Your task to perform on an android device: Clear all items from cart on walmart.com. Search for "duracell triple a" on walmart.com, select the first entry, add it to the cart, then select checkout. Image 0: 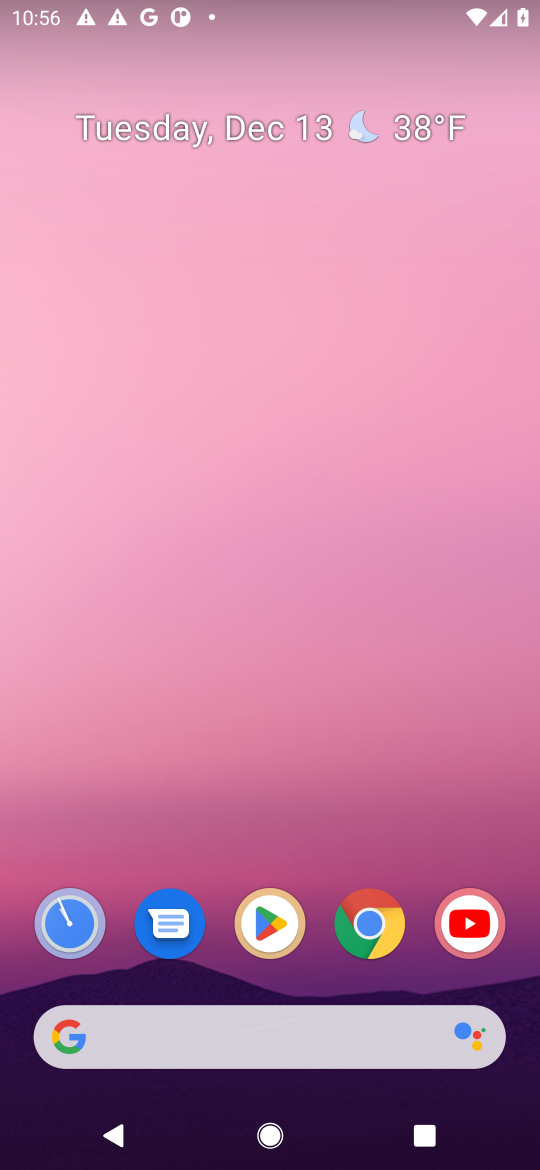
Step 0: click (298, 1028)
Your task to perform on an android device: Clear all items from cart on walmart.com. Search for "duracell triple a" on walmart.com, select the first entry, add it to the cart, then select checkout. Image 1: 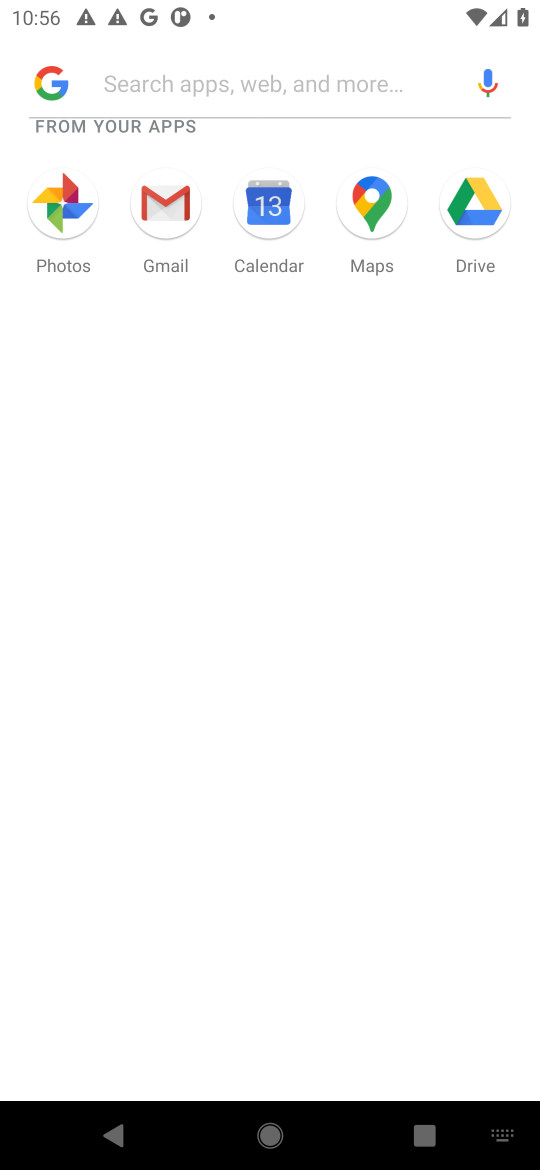
Step 1: type "walmart"
Your task to perform on an android device: Clear all items from cart on walmart.com. Search for "duracell triple a" on walmart.com, select the first entry, add it to the cart, then select checkout. Image 2: 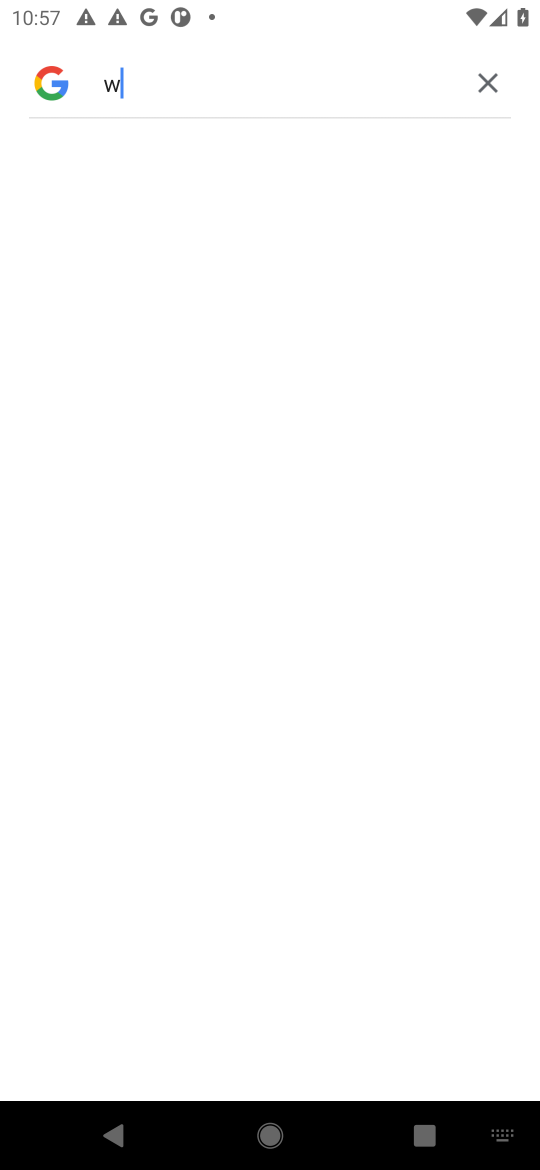
Step 2: press home button
Your task to perform on an android device: Clear all items from cart on walmart.com. Search for "duracell triple a" on walmart.com, select the first entry, add it to the cart, then select checkout. Image 3: 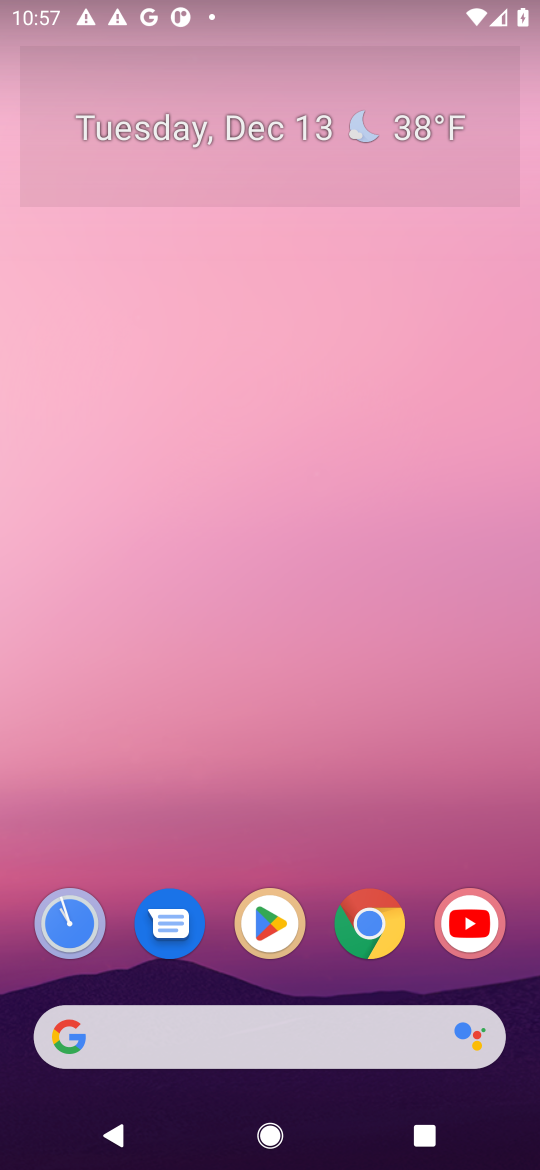
Step 3: click (374, 943)
Your task to perform on an android device: Clear all items from cart on walmart.com. Search for "duracell triple a" on walmart.com, select the first entry, add it to the cart, then select checkout. Image 4: 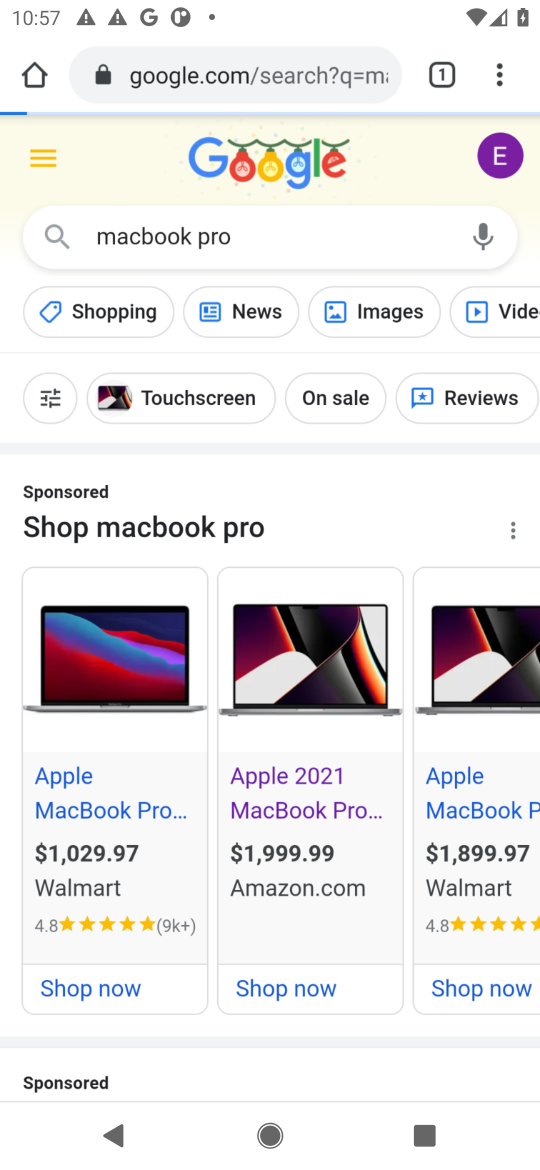
Step 4: click (307, 258)
Your task to perform on an android device: Clear all items from cart on walmart.com. Search for "duracell triple a" on walmart.com, select the first entry, add it to the cart, then select checkout. Image 5: 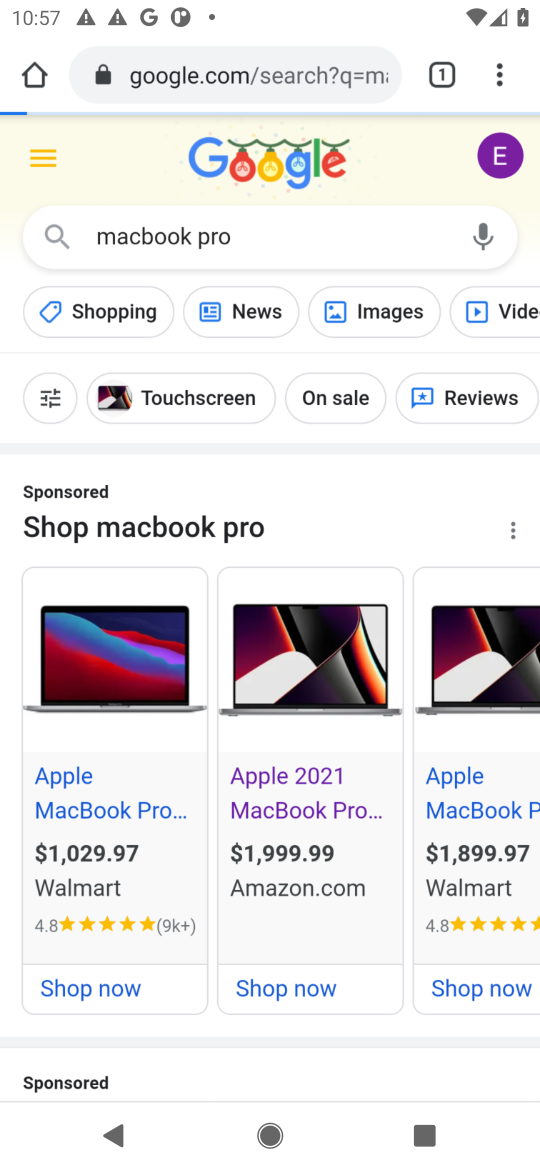
Step 5: click (325, 78)
Your task to perform on an android device: Clear all items from cart on walmart.com. Search for "duracell triple a" on walmart.com, select the first entry, add it to the cart, then select checkout. Image 6: 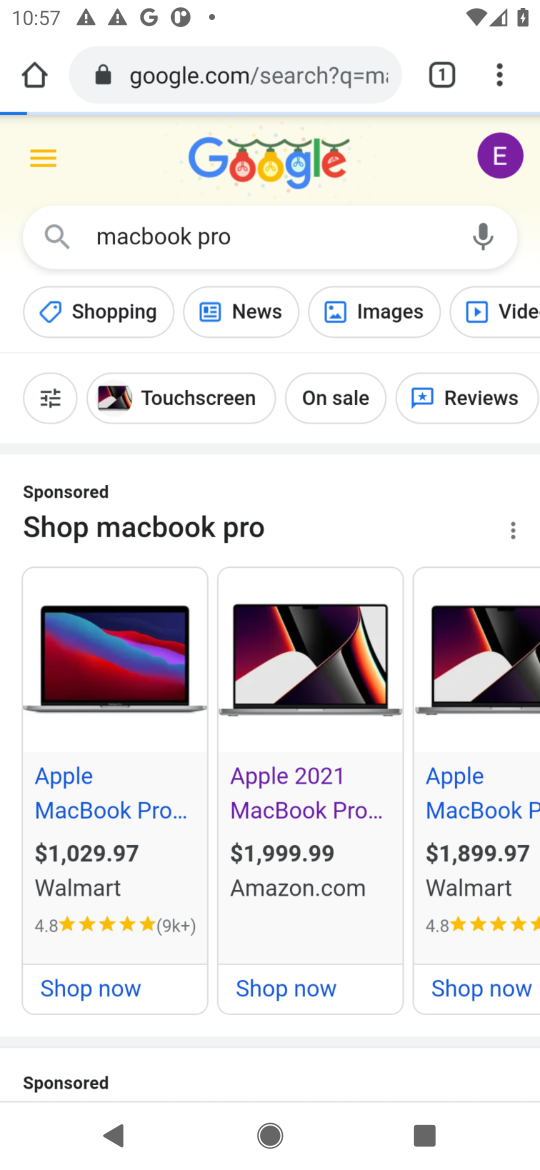
Step 6: click (325, 78)
Your task to perform on an android device: Clear all items from cart on walmart.com. Search for "duracell triple a" on walmart.com, select the first entry, add it to the cart, then select checkout. Image 7: 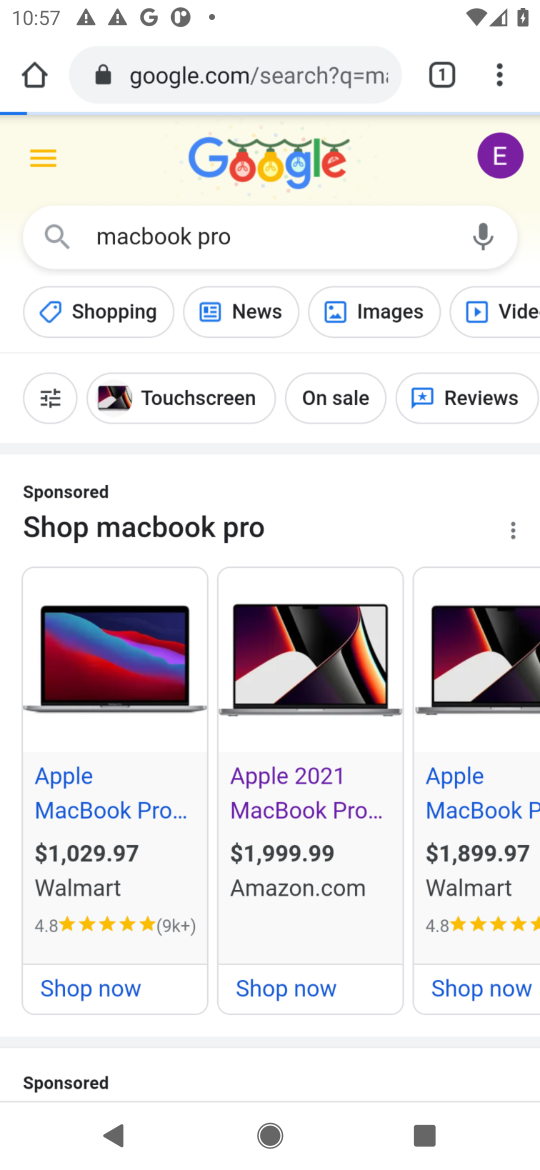
Step 7: click (329, 76)
Your task to perform on an android device: Clear all items from cart on walmart.com. Search for "duracell triple a" on walmart.com, select the first entry, add it to the cart, then select checkout. Image 8: 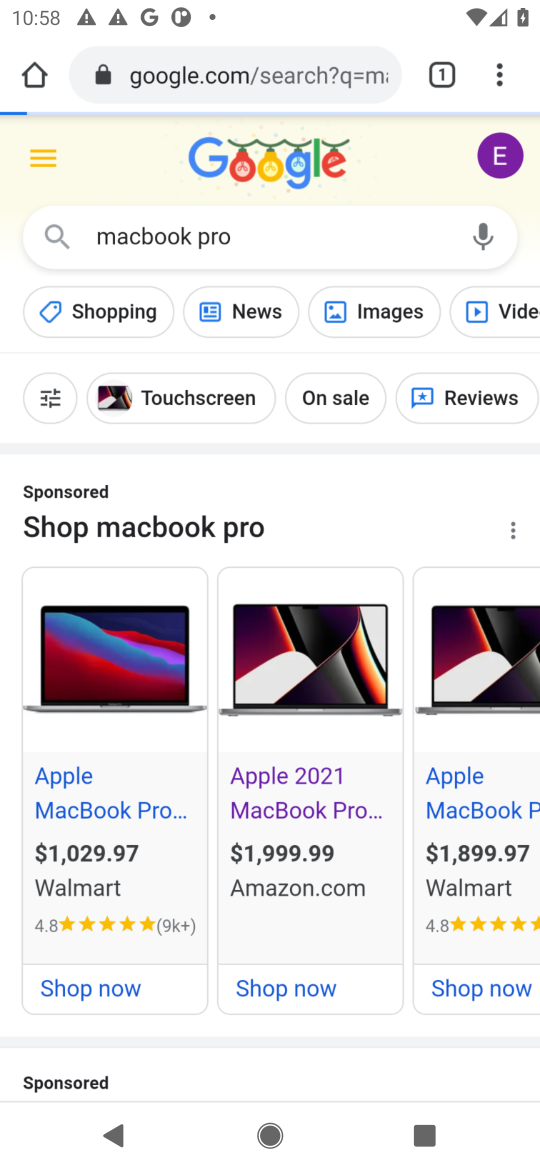
Step 8: click (274, 87)
Your task to perform on an android device: Clear all items from cart on walmart.com. Search for "duracell triple a" on walmart.com, select the first entry, add it to the cart, then select checkout. Image 9: 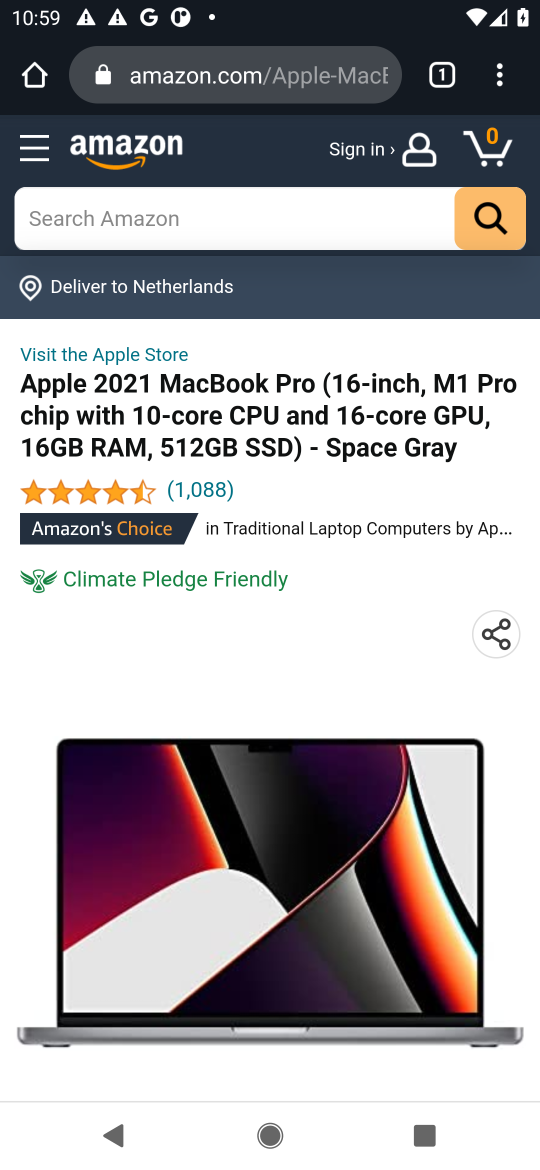
Step 9: click (305, 234)
Your task to perform on an android device: Clear all items from cart on walmart.com. Search for "duracell triple a" on walmart.com, select the first entry, add it to the cart, then select checkout. Image 10: 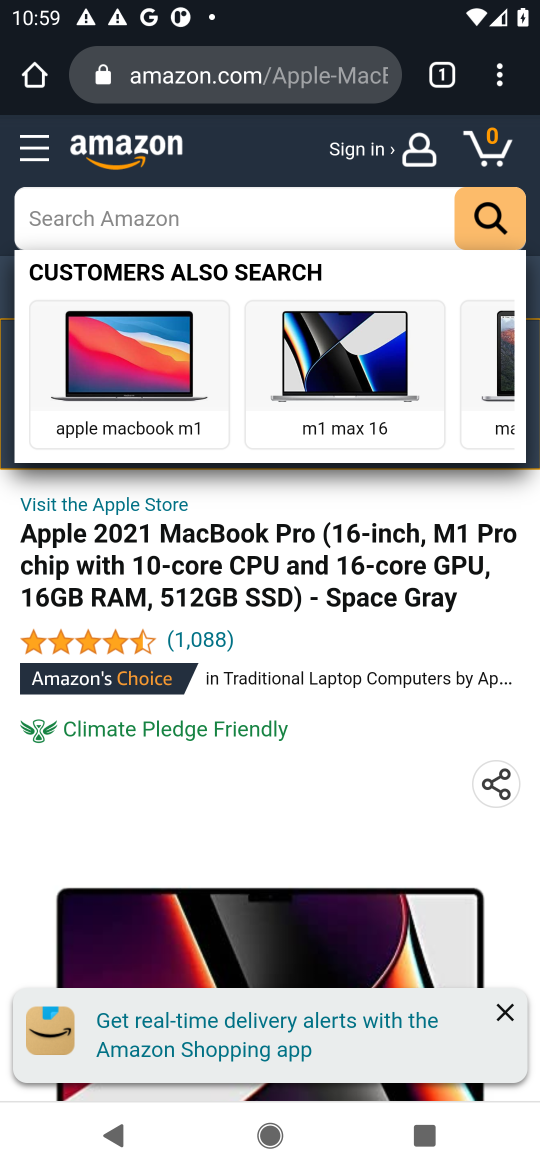
Step 10: type "duracell triple a"
Your task to perform on an android device: Clear all items from cart on walmart.com. Search for "duracell triple a" on walmart.com, select the first entry, add it to the cart, then select checkout. Image 11: 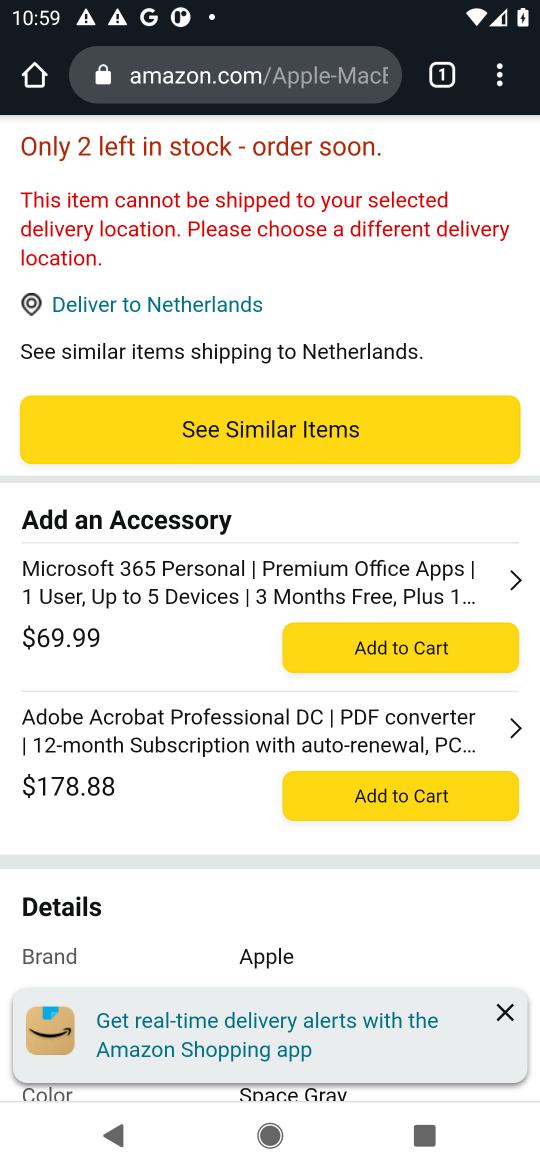
Step 11: drag from (287, 327) to (306, 1138)
Your task to perform on an android device: Clear all items from cart on walmart.com. Search for "duracell triple a" on walmart.com, select the first entry, add it to the cart, then select checkout. Image 12: 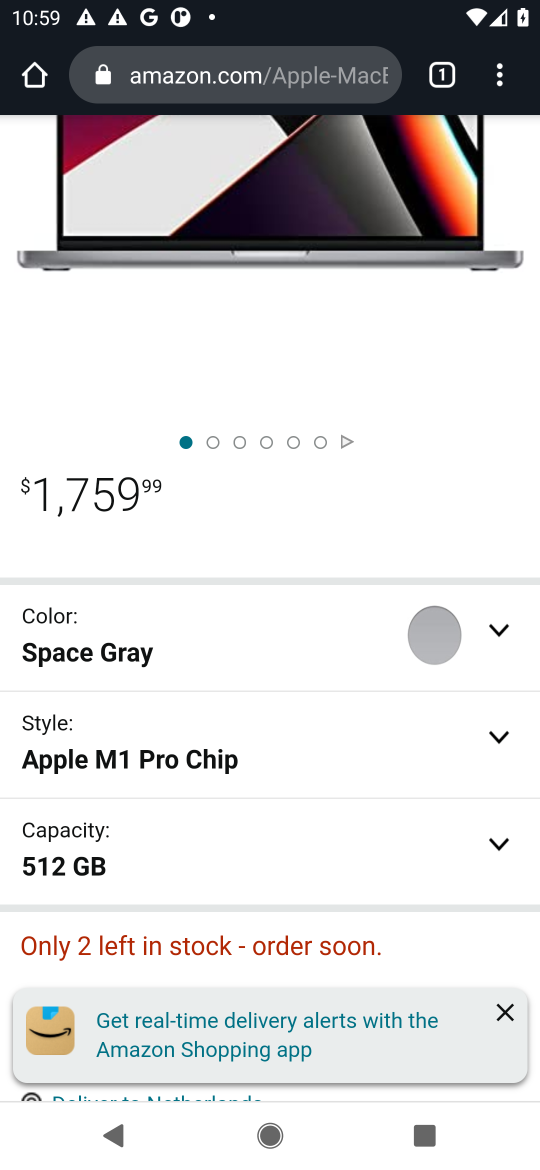
Step 12: drag from (284, 268) to (363, 1160)
Your task to perform on an android device: Clear all items from cart on walmart.com. Search for "duracell triple a" on walmart.com, select the first entry, add it to the cart, then select checkout. Image 13: 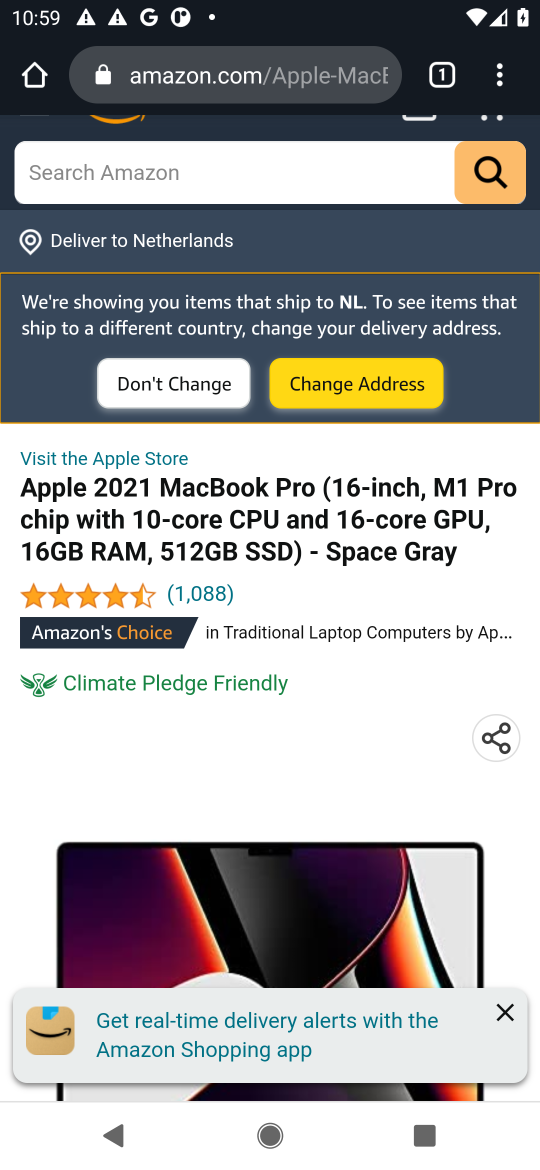
Step 13: click (224, 183)
Your task to perform on an android device: Clear all items from cart on walmart.com. Search for "duracell triple a" on walmart.com, select the first entry, add it to the cart, then select checkout. Image 14: 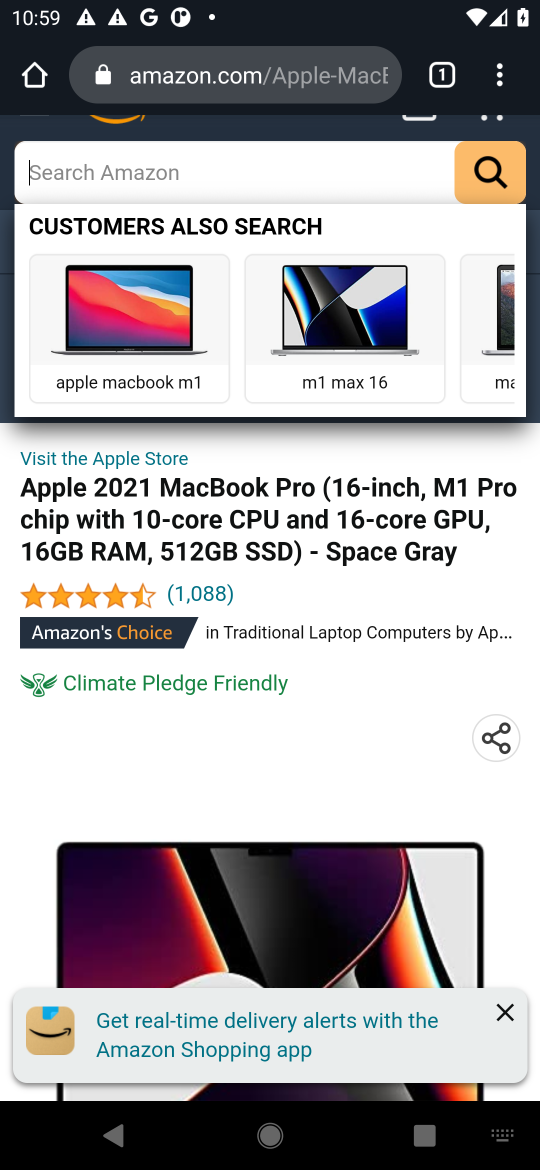
Step 14: click (224, 183)
Your task to perform on an android device: Clear all items from cart on walmart.com. Search for "duracell triple a" on walmart.com, select the first entry, add it to the cart, then select checkout. Image 15: 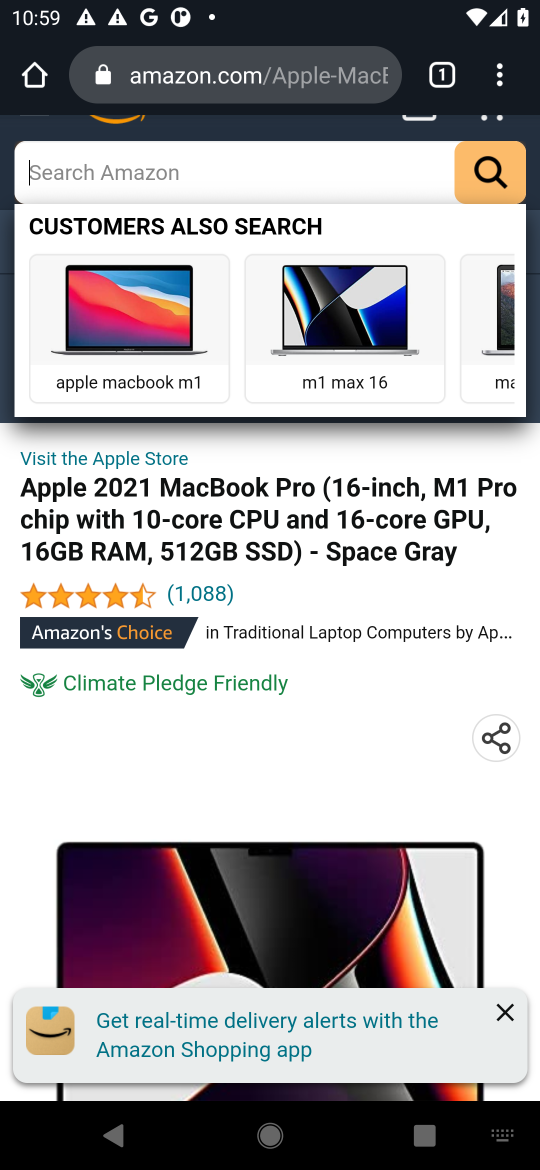
Step 15: type "duracell triple a"
Your task to perform on an android device: Clear all items from cart on walmart.com. Search for "duracell triple a" on walmart.com, select the first entry, add it to the cart, then select checkout. Image 16: 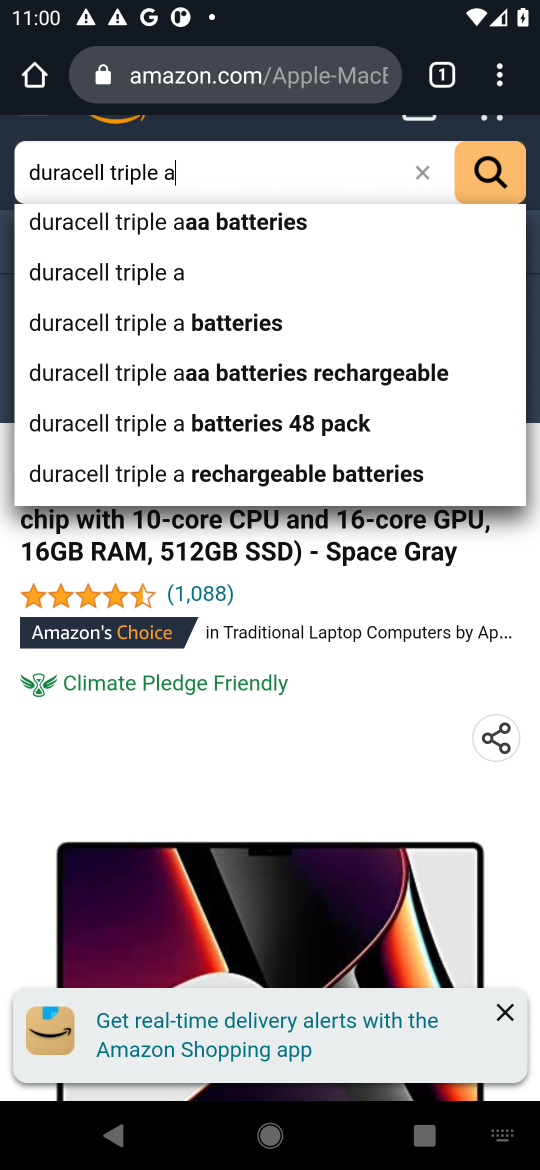
Step 16: click (180, 235)
Your task to perform on an android device: Clear all items from cart on walmart.com. Search for "duracell triple a" on walmart.com, select the first entry, add it to the cart, then select checkout. Image 17: 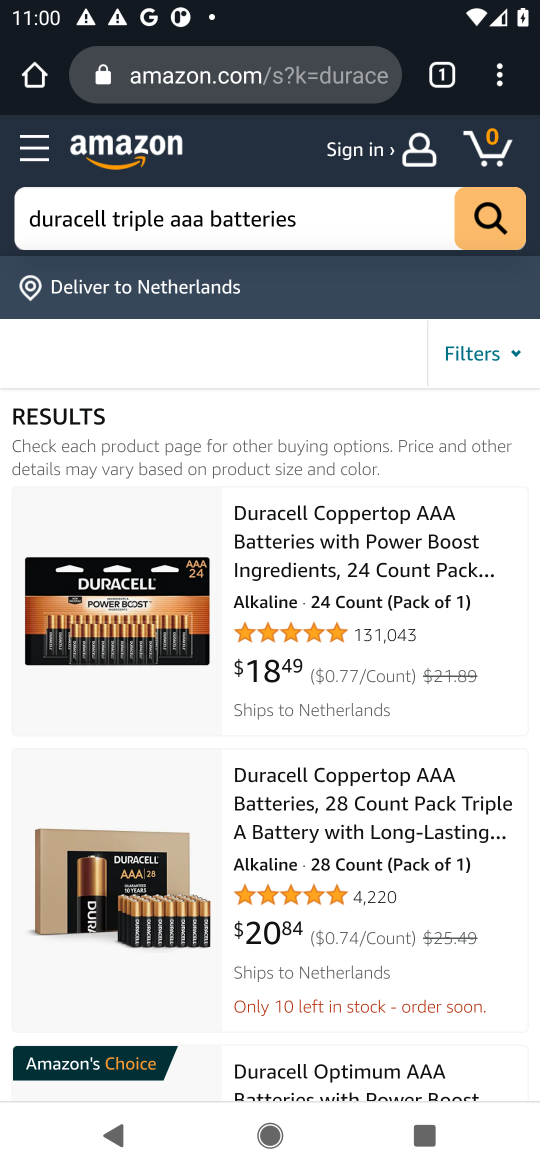
Step 17: click (350, 580)
Your task to perform on an android device: Clear all items from cart on walmart.com. Search for "duracell triple a" on walmart.com, select the first entry, add it to the cart, then select checkout. Image 18: 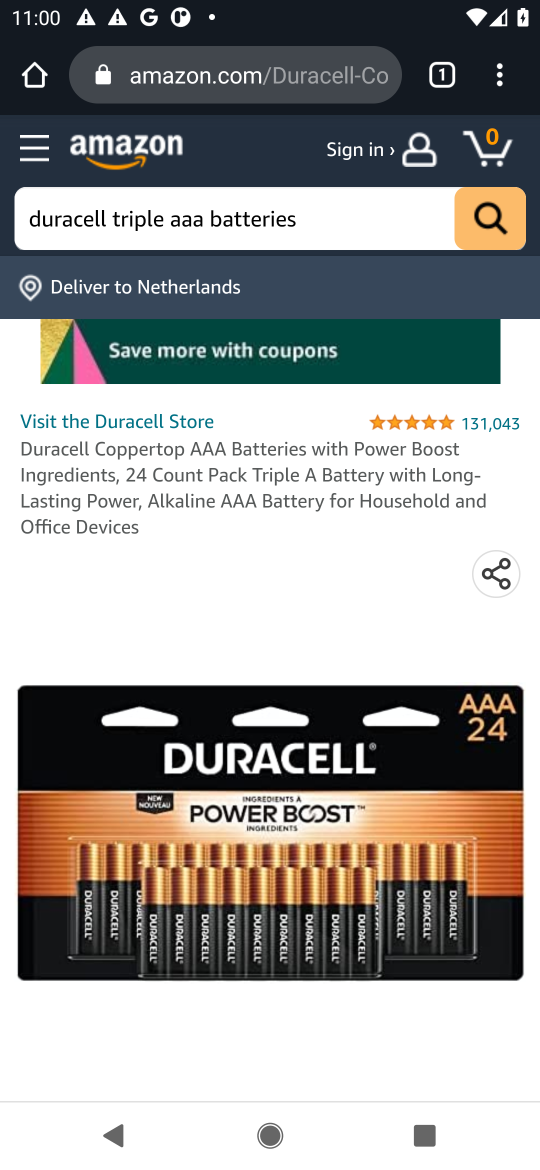
Step 18: drag from (288, 856) to (431, 356)
Your task to perform on an android device: Clear all items from cart on walmart.com. Search for "duracell triple a" on walmart.com, select the first entry, add it to the cart, then select checkout. Image 19: 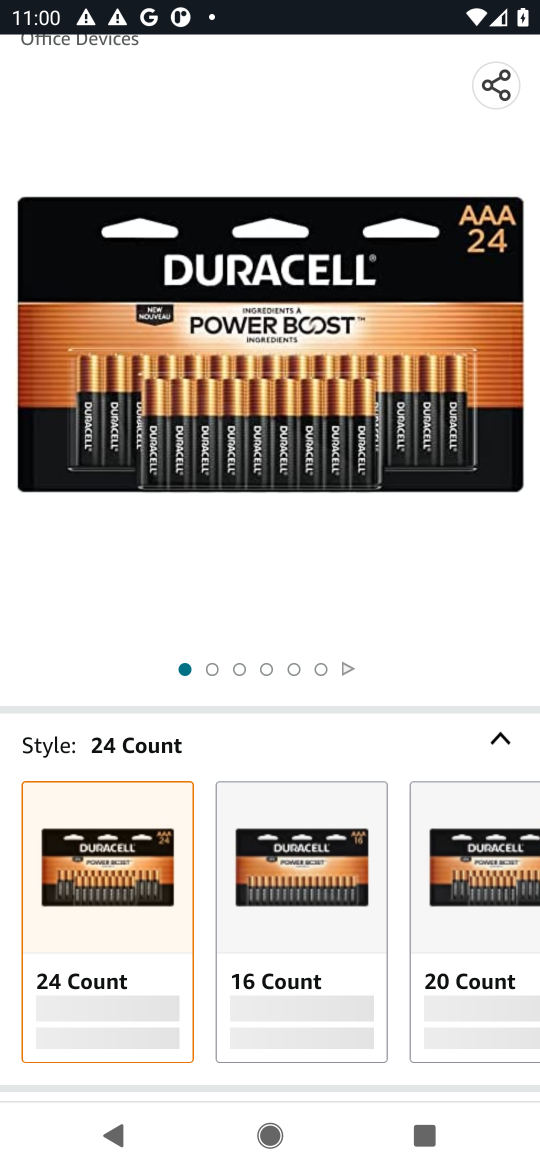
Step 19: drag from (222, 972) to (406, 423)
Your task to perform on an android device: Clear all items from cart on walmart.com. Search for "duracell triple a" on walmart.com, select the first entry, add it to the cart, then select checkout. Image 20: 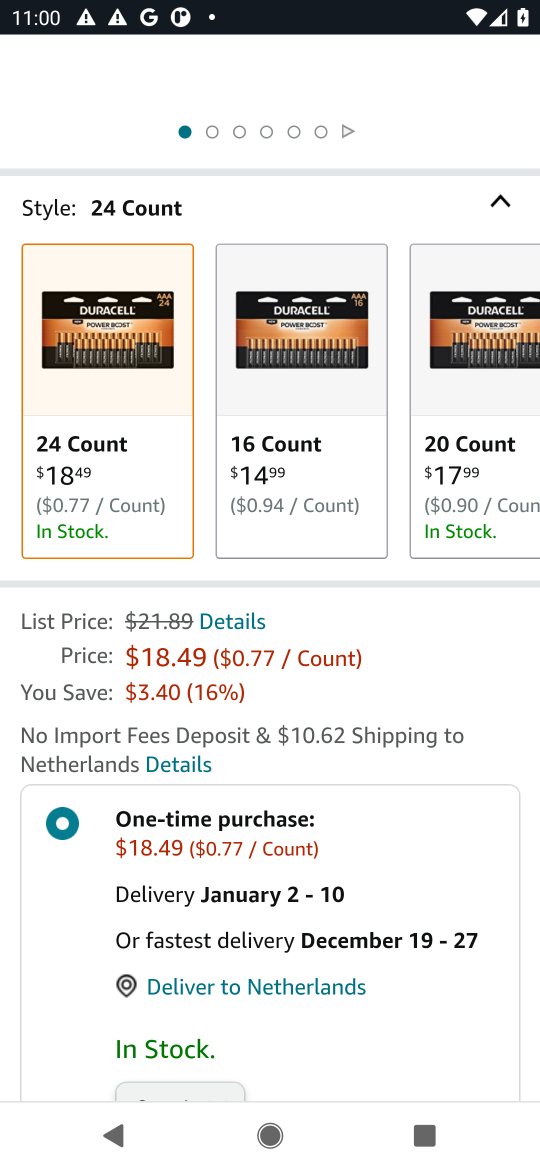
Step 20: drag from (386, 1018) to (409, 519)
Your task to perform on an android device: Clear all items from cart on walmart.com. Search for "duracell triple a" on walmart.com, select the first entry, add it to the cart, then select checkout. Image 21: 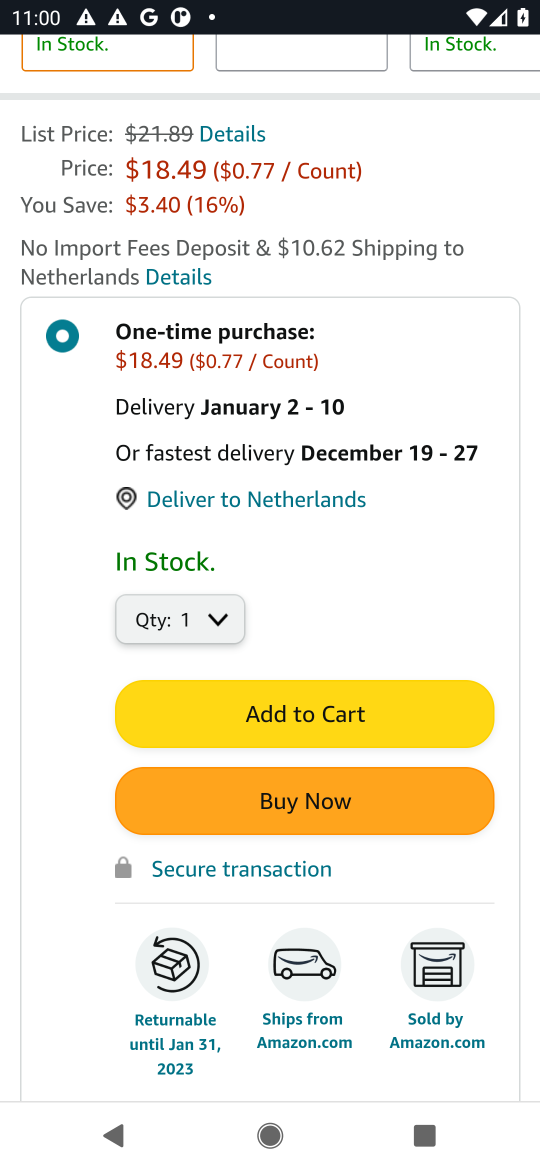
Step 21: click (241, 717)
Your task to perform on an android device: Clear all items from cart on walmart.com. Search for "duracell triple a" on walmart.com, select the first entry, add it to the cart, then select checkout. Image 22: 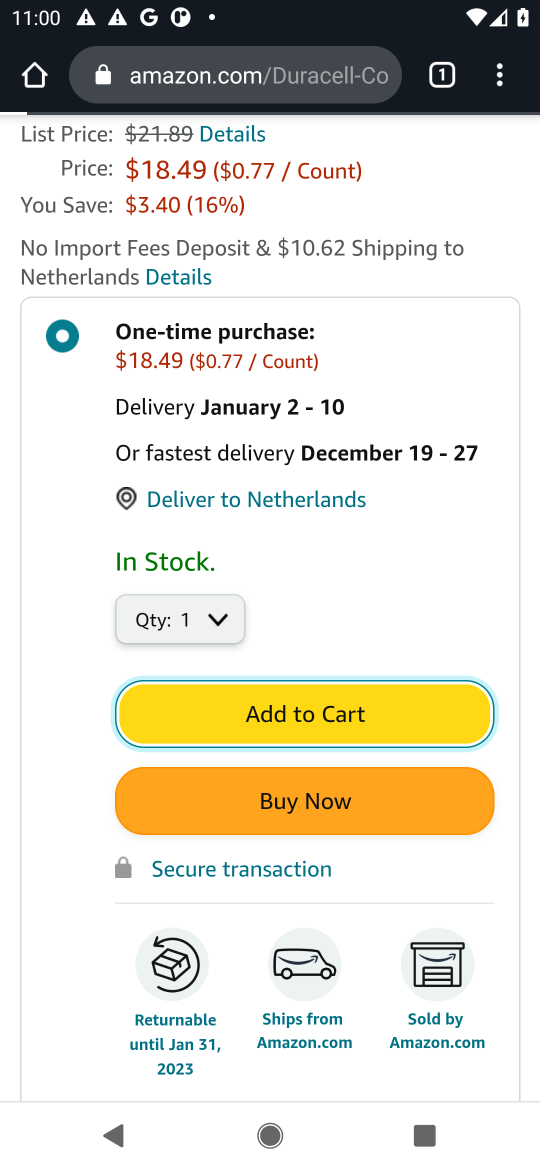
Step 22: task complete